Your task to perform on an android device: Go to Wikipedia Image 0: 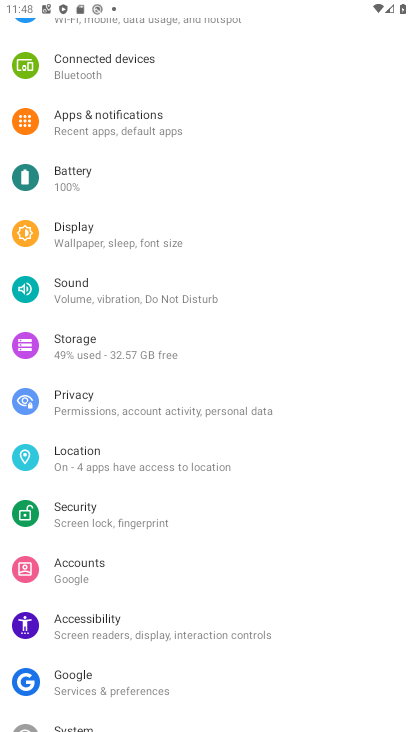
Step 0: press home button
Your task to perform on an android device: Go to Wikipedia Image 1: 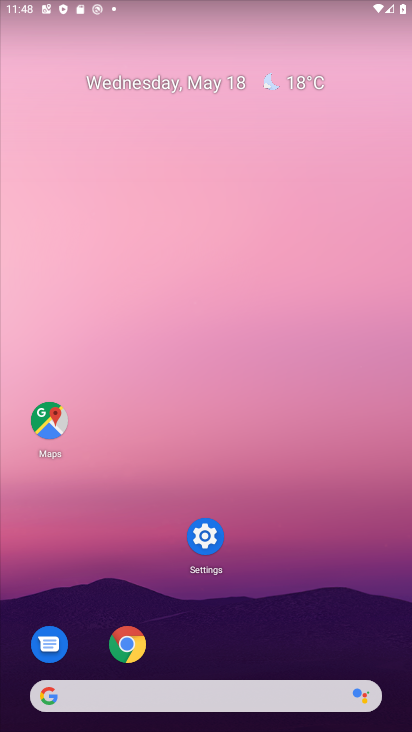
Step 1: click (124, 637)
Your task to perform on an android device: Go to Wikipedia Image 2: 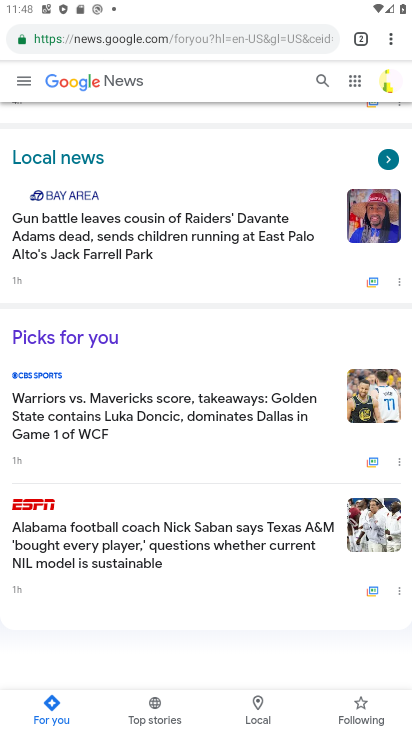
Step 2: click (208, 35)
Your task to perform on an android device: Go to Wikipedia Image 3: 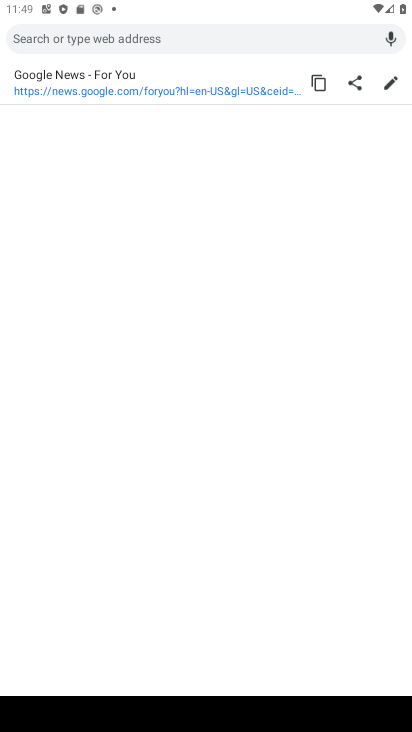
Step 3: type "wikipedia"
Your task to perform on an android device: Go to Wikipedia Image 4: 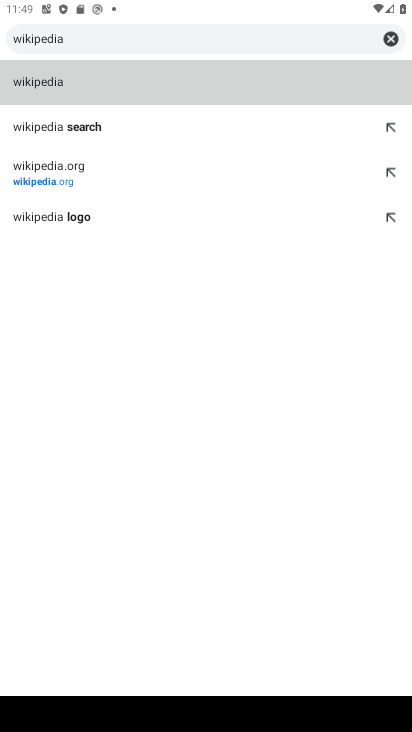
Step 4: click (36, 81)
Your task to perform on an android device: Go to Wikipedia Image 5: 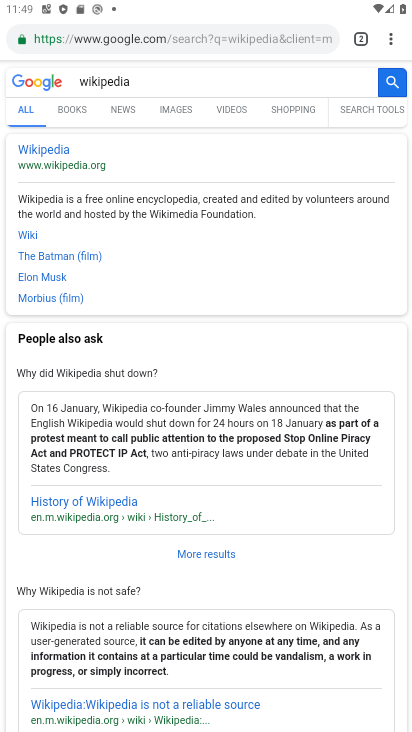
Step 5: click (51, 145)
Your task to perform on an android device: Go to Wikipedia Image 6: 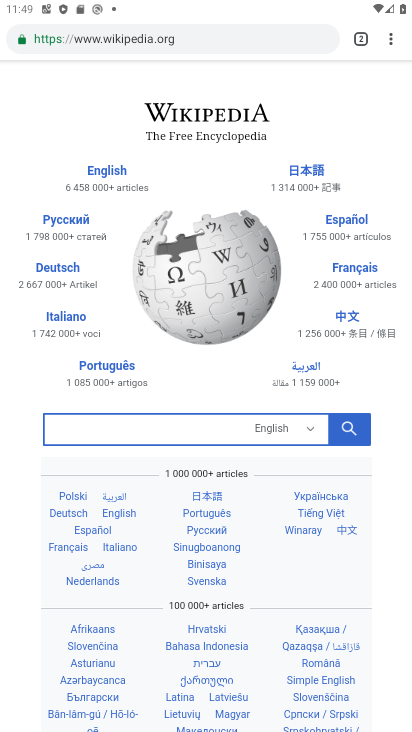
Step 6: task complete